Your task to perform on an android device: Open calendar and show me the first week of next month Image 0: 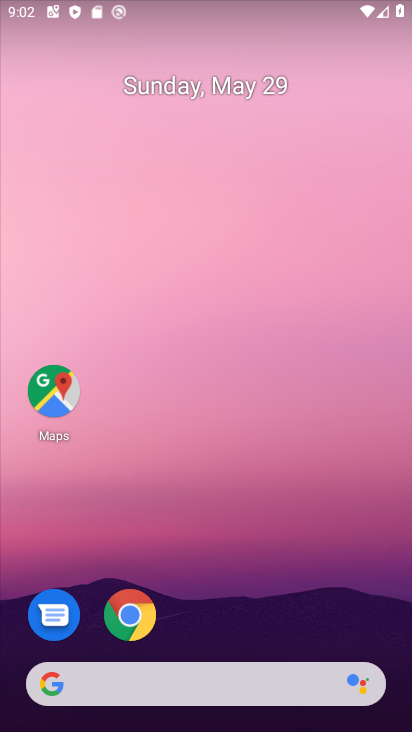
Step 0: drag from (251, 631) to (302, 154)
Your task to perform on an android device: Open calendar and show me the first week of next month Image 1: 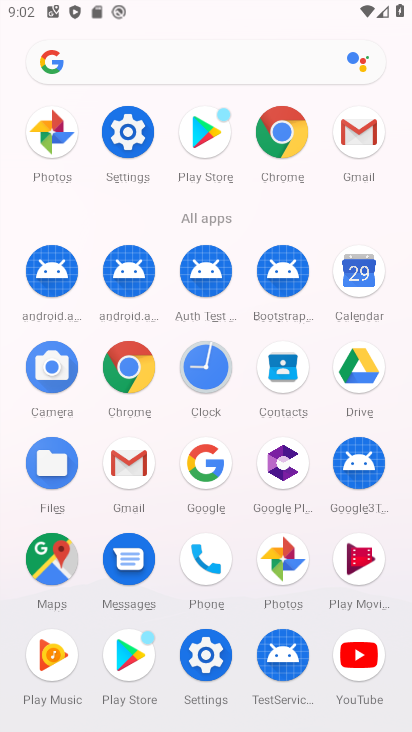
Step 1: click (352, 278)
Your task to perform on an android device: Open calendar and show me the first week of next month Image 2: 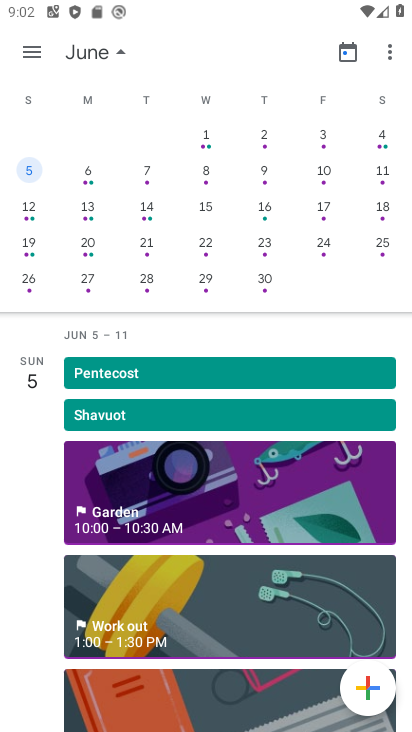
Step 2: click (211, 139)
Your task to perform on an android device: Open calendar and show me the first week of next month Image 3: 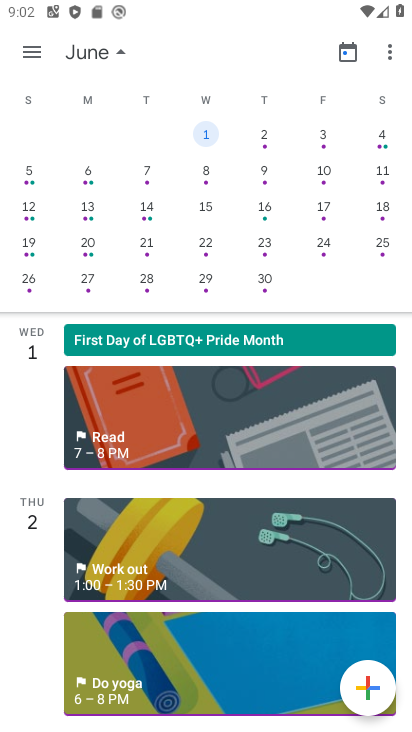
Step 3: task complete